Your task to perform on an android device: Open sound settings Image 0: 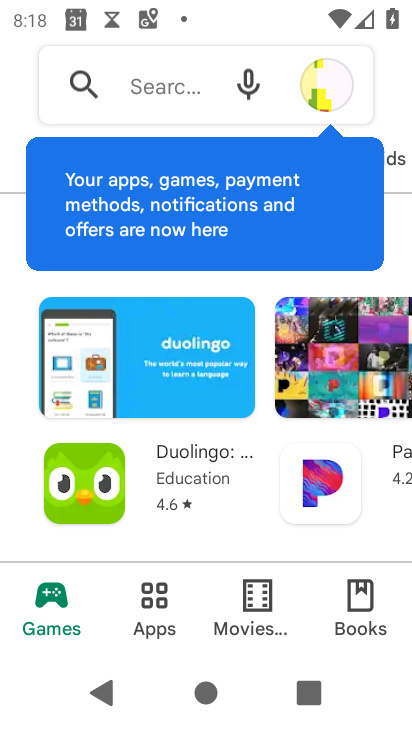
Step 0: press home button
Your task to perform on an android device: Open sound settings Image 1: 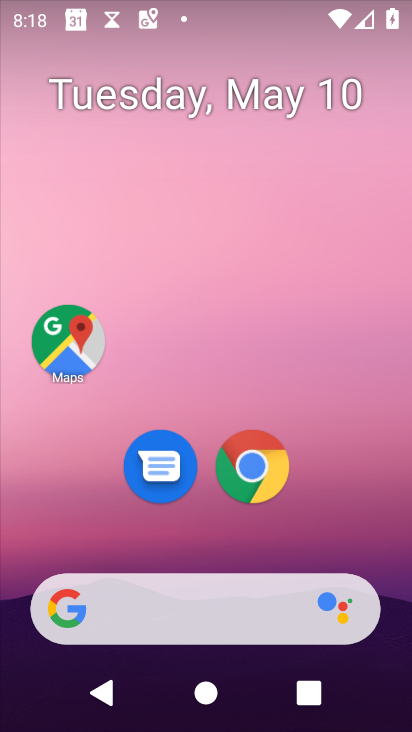
Step 1: drag from (265, 538) to (327, 57)
Your task to perform on an android device: Open sound settings Image 2: 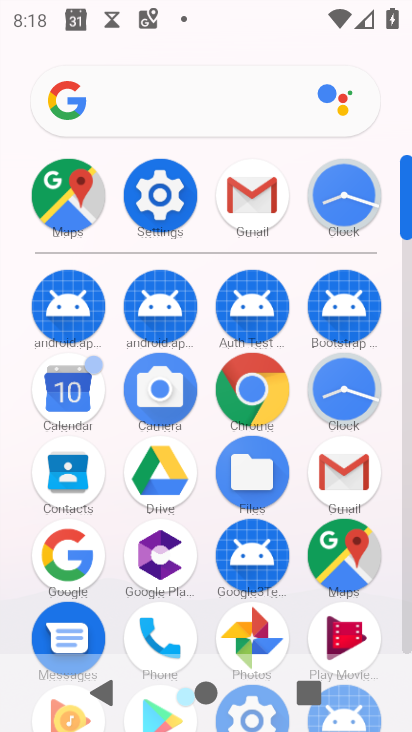
Step 2: drag from (289, 599) to (321, 275)
Your task to perform on an android device: Open sound settings Image 3: 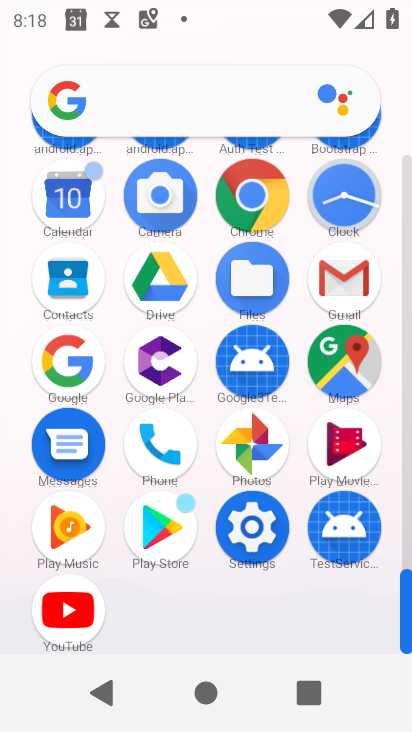
Step 3: click (250, 555)
Your task to perform on an android device: Open sound settings Image 4: 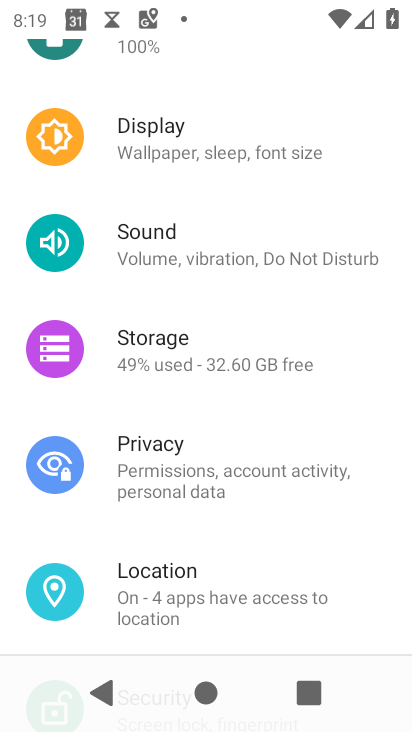
Step 4: drag from (253, 571) to (254, 324)
Your task to perform on an android device: Open sound settings Image 5: 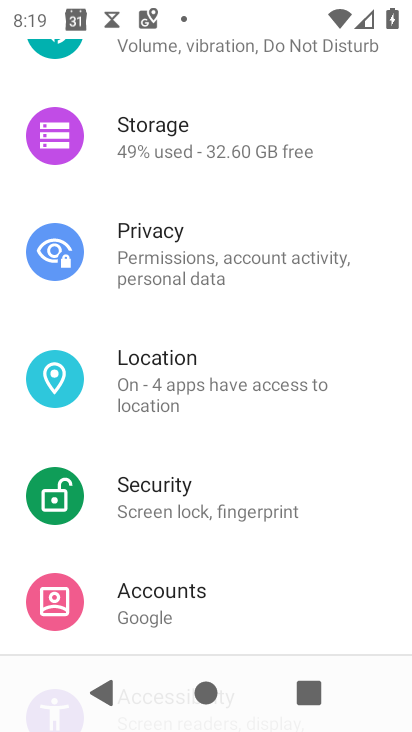
Step 5: click (258, 49)
Your task to perform on an android device: Open sound settings Image 6: 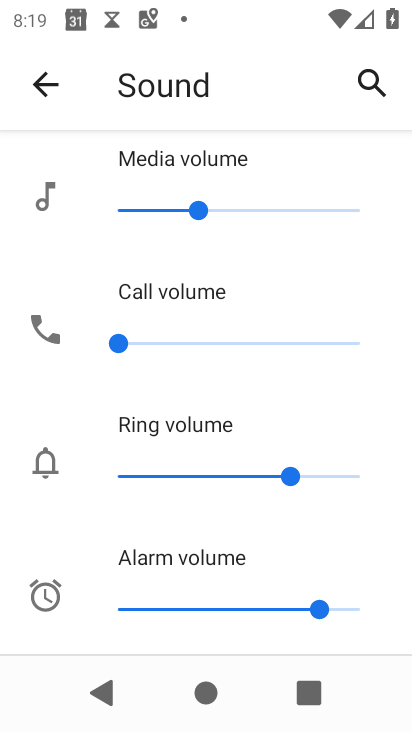
Step 6: task complete